Your task to perform on an android device: Do I have any events tomorrow? Image 0: 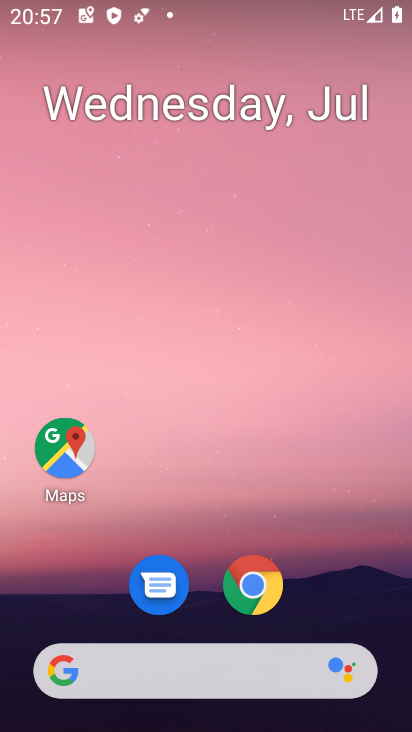
Step 0: drag from (244, 491) to (228, 7)
Your task to perform on an android device: Do I have any events tomorrow? Image 1: 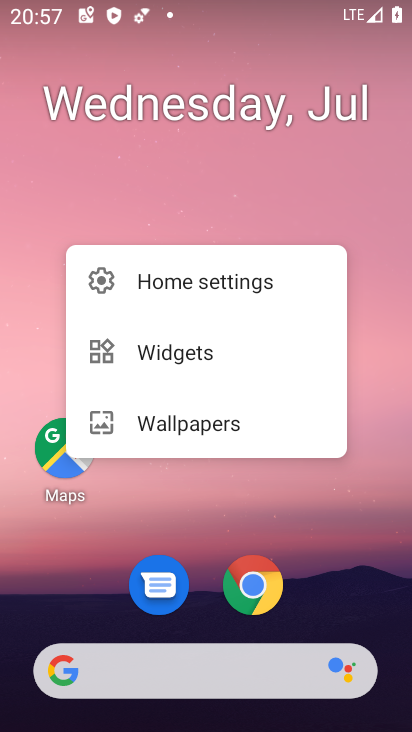
Step 1: click (254, 509)
Your task to perform on an android device: Do I have any events tomorrow? Image 2: 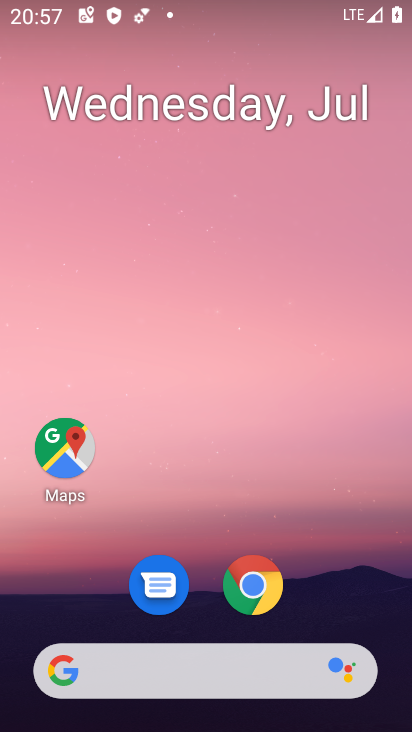
Step 2: drag from (251, 512) to (303, 68)
Your task to perform on an android device: Do I have any events tomorrow? Image 3: 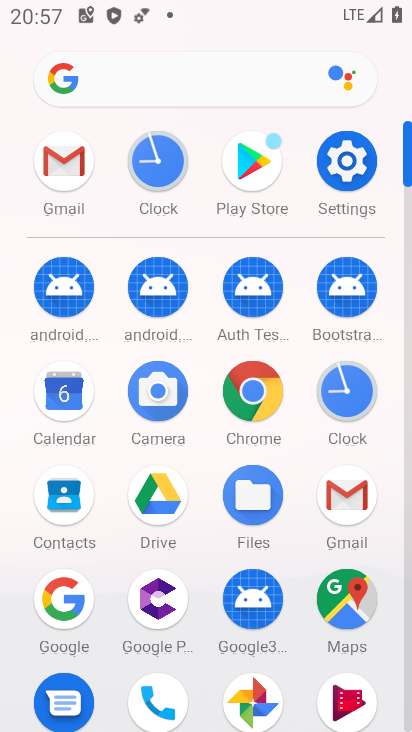
Step 3: click (69, 392)
Your task to perform on an android device: Do I have any events tomorrow? Image 4: 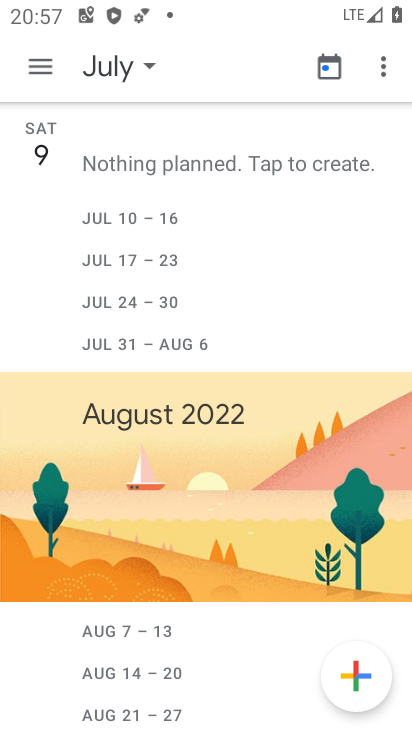
Step 4: click (41, 61)
Your task to perform on an android device: Do I have any events tomorrow? Image 5: 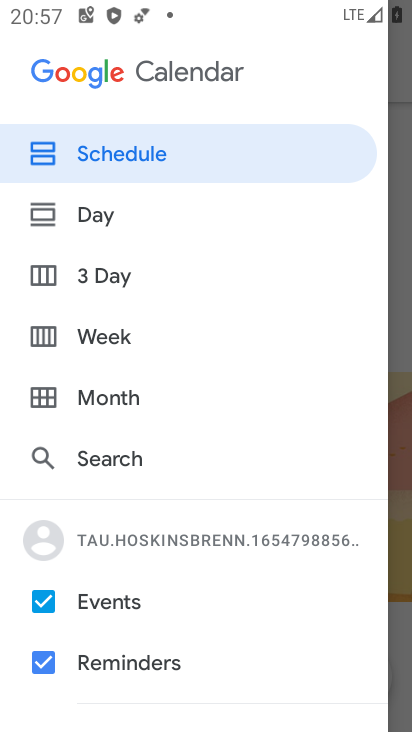
Step 5: click (48, 332)
Your task to perform on an android device: Do I have any events tomorrow? Image 6: 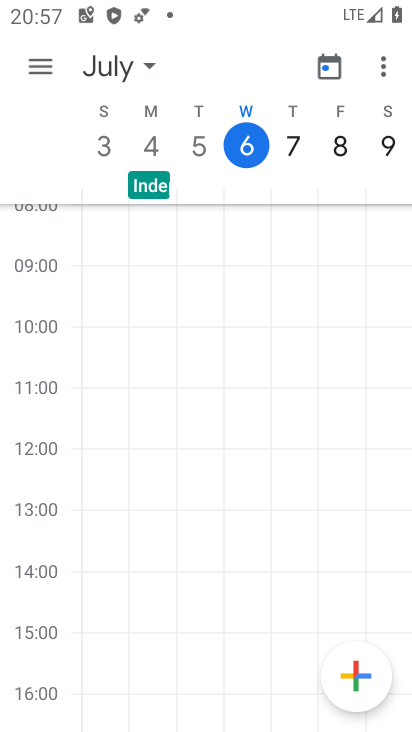
Step 6: click (285, 137)
Your task to perform on an android device: Do I have any events tomorrow? Image 7: 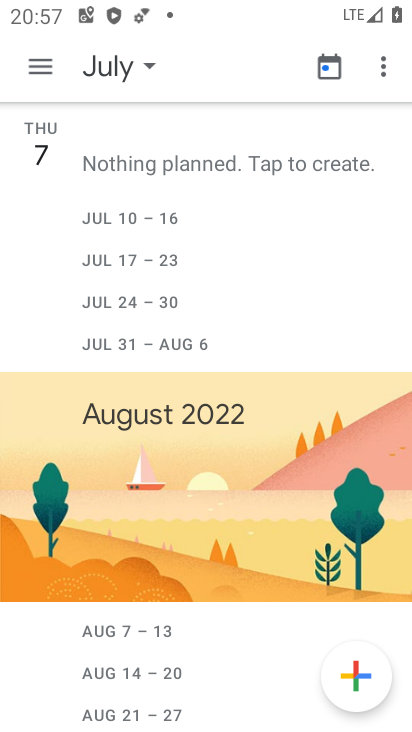
Step 7: task complete